Your task to perform on an android device: What's on my calendar today? Image 0: 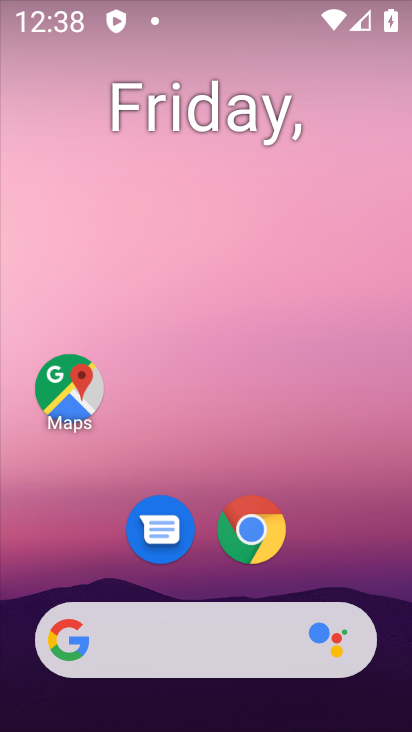
Step 0: drag from (204, 591) to (220, 177)
Your task to perform on an android device: What's on my calendar today? Image 1: 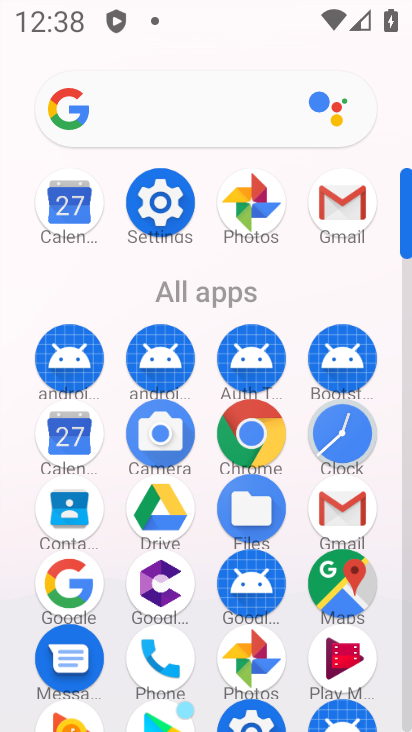
Step 1: click (67, 206)
Your task to perform on an android device: What's on my calendar today? Image 2: 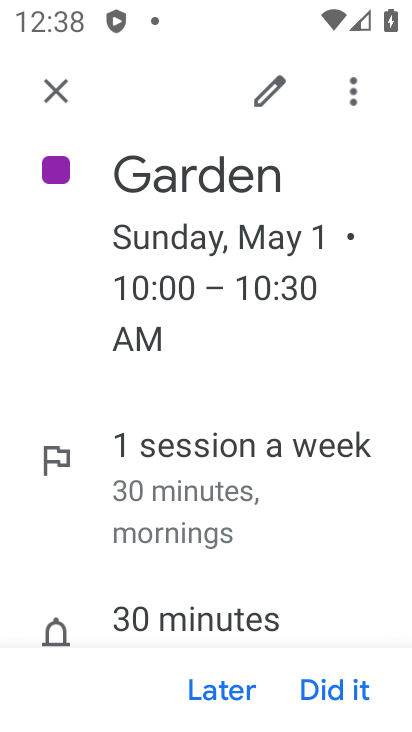
Step 2: click (45, 89)
Your task to perform on an android device: What's on my calendar today? Image 3: 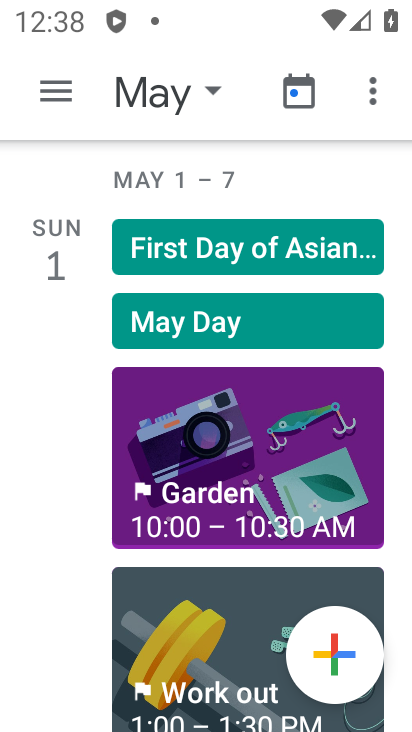
Step 3: click (160, 85)
Your task to perform on an android device: What's on my calendar today? Image 4: 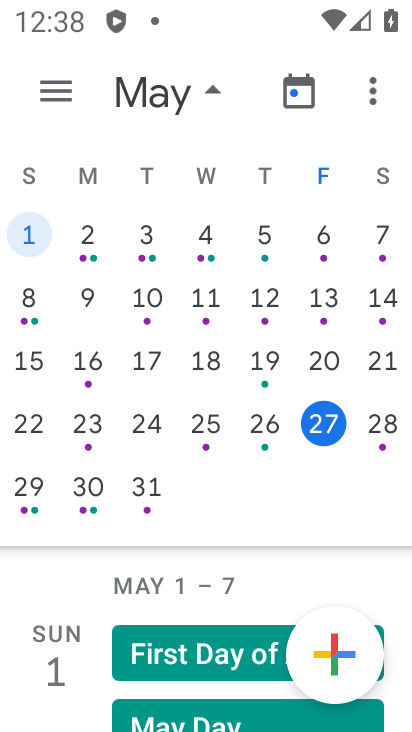
Step 4: click (324, 424)
Your task to perform on an android device: What's on my calendar today? Image 5: 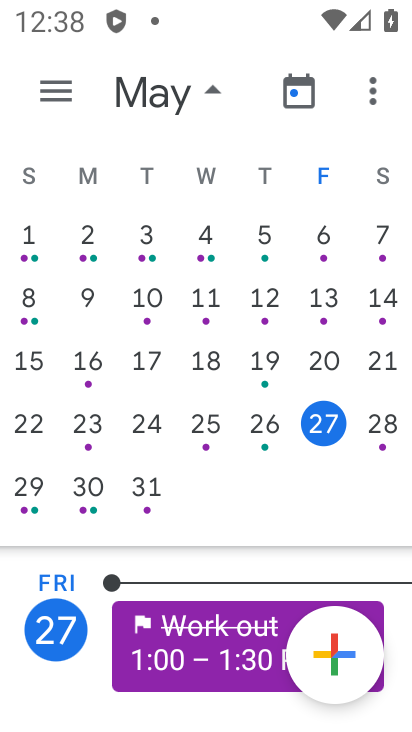
Step 5: task complete